Your task to perform on an android device: Is it going to rain today? Image 0: 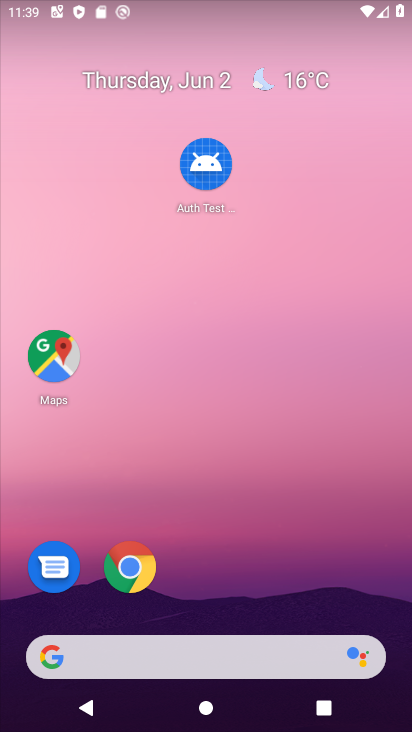
Step 0: click (307, 89)
Your task to perform on an android device: Is it going to rain today? Image 1: 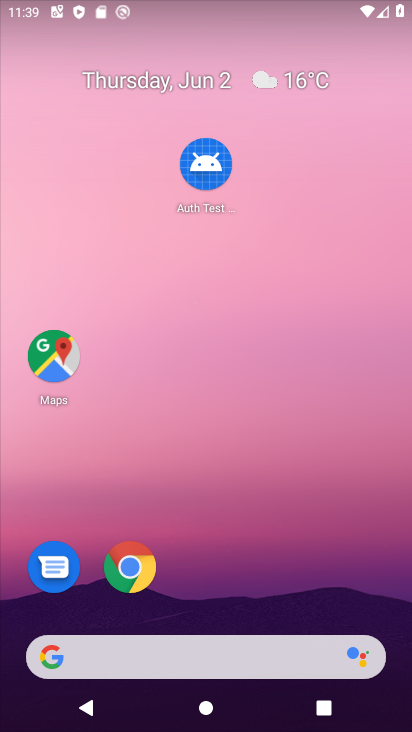
Step 1: click (311, 86)
Your task to perform on an android device: Is it going to rain today? Image 2: 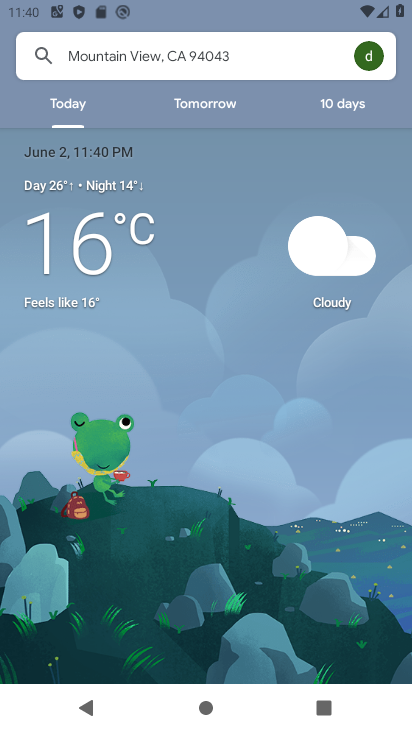
Step 2: task complete